Your task to perform on an android device: change the upload size in google photos Image 0: 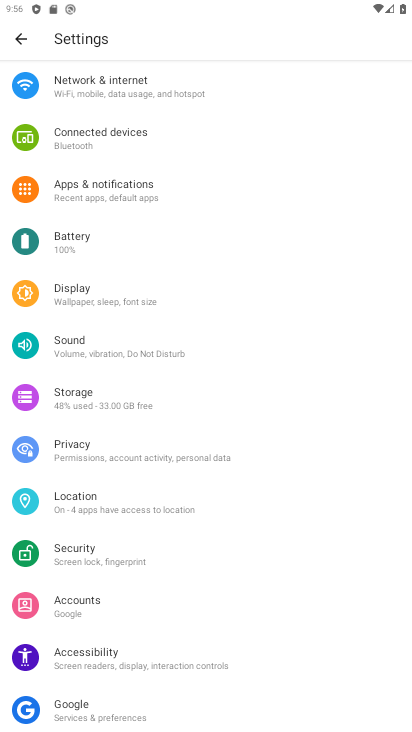
Step 0: press home button
Your task to perform on an android device: change the upload size in google photos Image 1: 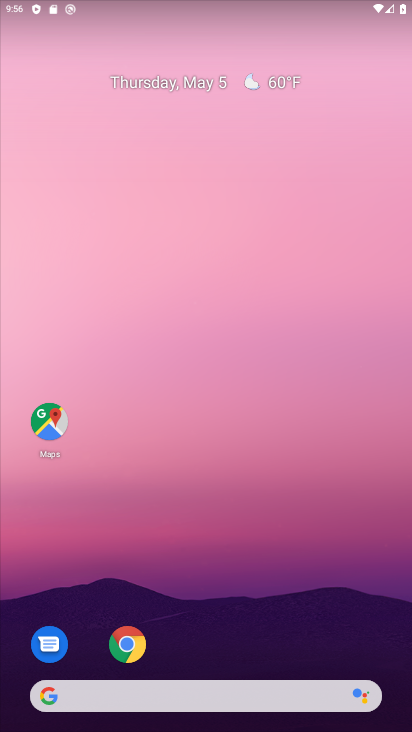
Step 1: drag from (364, 634) to (361, 153)
Your task to perform on an android device: change the upload size in google photos Image 2: 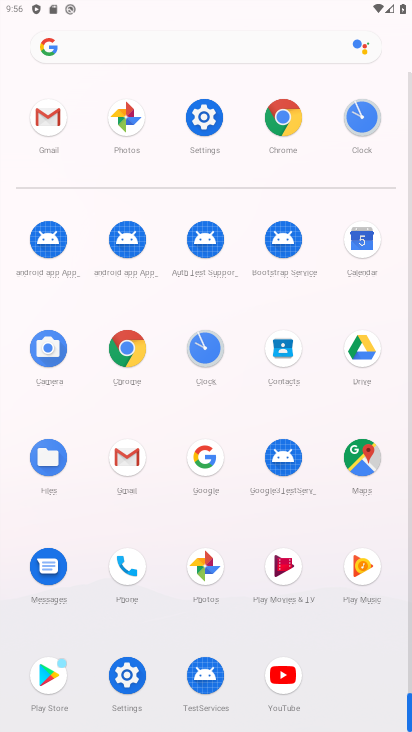
Step 2: click (203, 565)
Your task to perform on an android device: change the upload size in google photos Image 3: 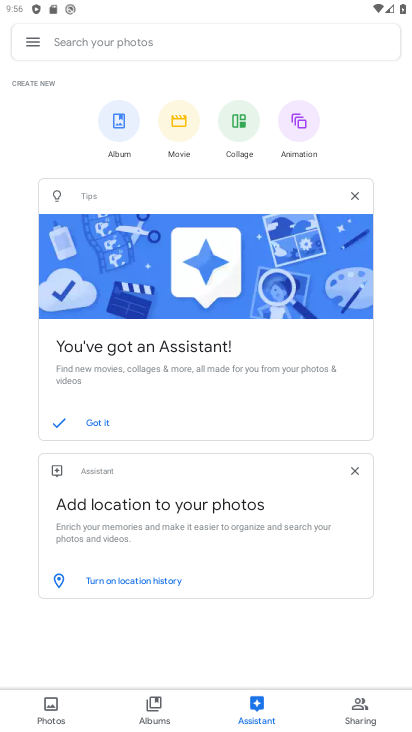
Step 3: click (52, 705)
Your task to perform on an android device: change the upload size in google photos Image 4: 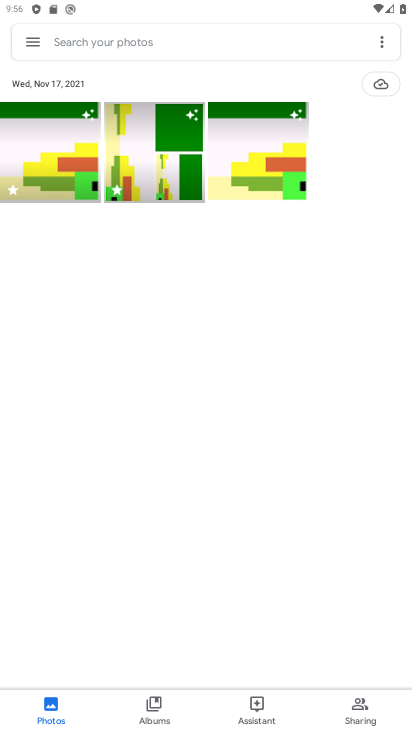
Step 4: click (26, 55)
Your task to perform on an android device: change the upload size in google photos Image 5: 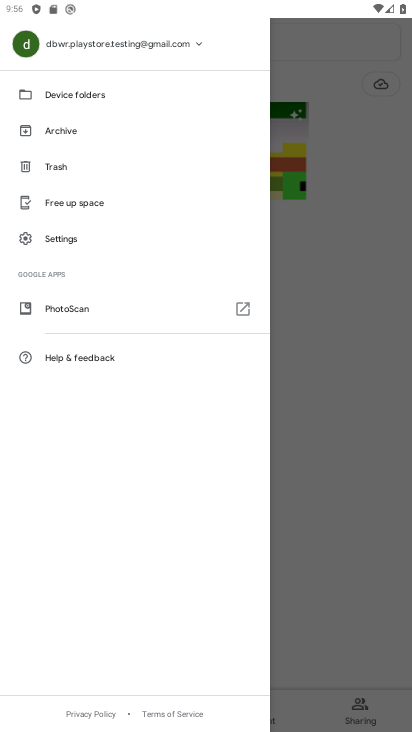
Step 5: click (67, 233)
Your task to perform on an android device: change the upload size in google photos Image 6: 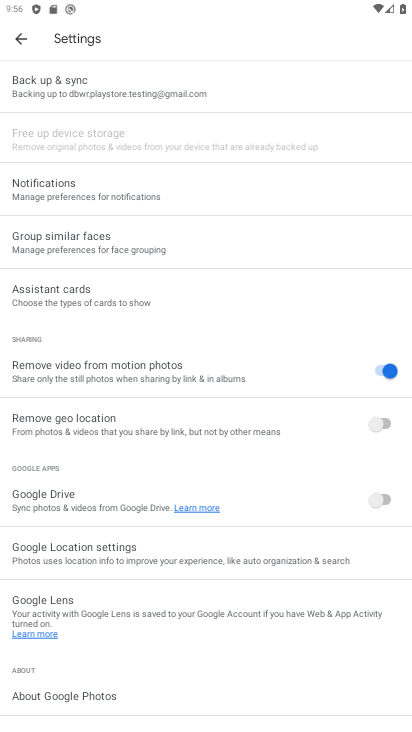
Step 6: click (156, 81)
Your task to perform on an android device: change the upload size in google photos Image 7: 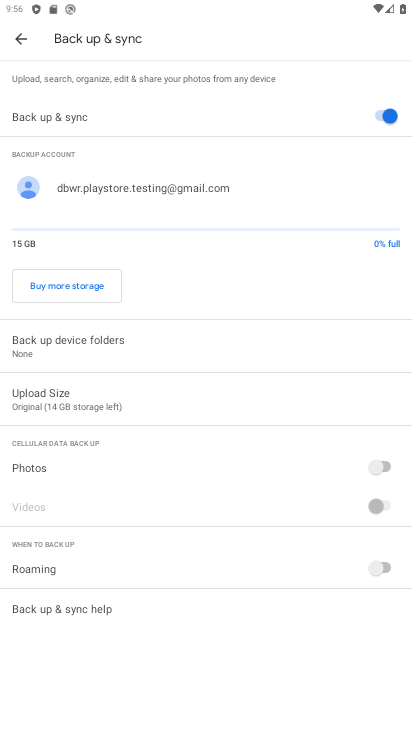
Step 7: click (139, 401)
Your task to perform on an android device: change the upload size in google photos Image 8: 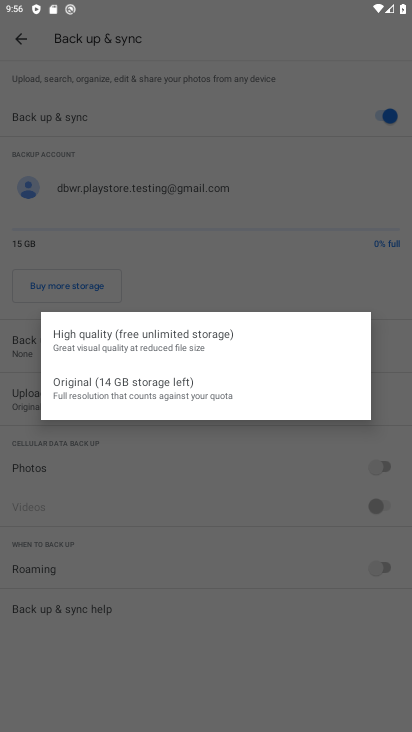
Step 8: click (123, 341)
Your task to perform on an android device: change the upload size in google photos Image 9: 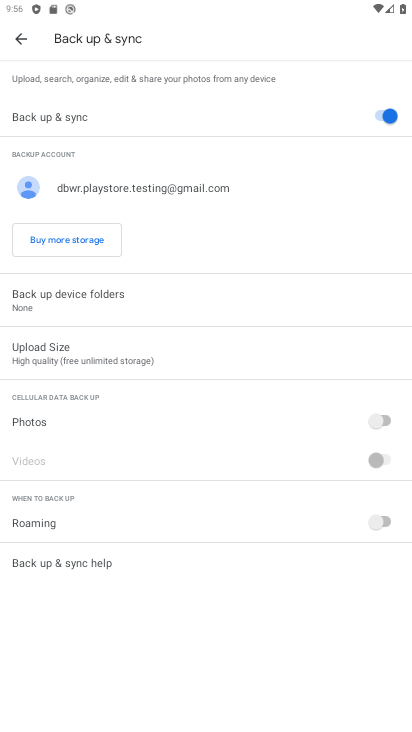
Step 9: task complete